Your task to perform on an android device: Search for "sony triple a" on costco, select the first entry, add it to the cart, then select checkout. Image 0: 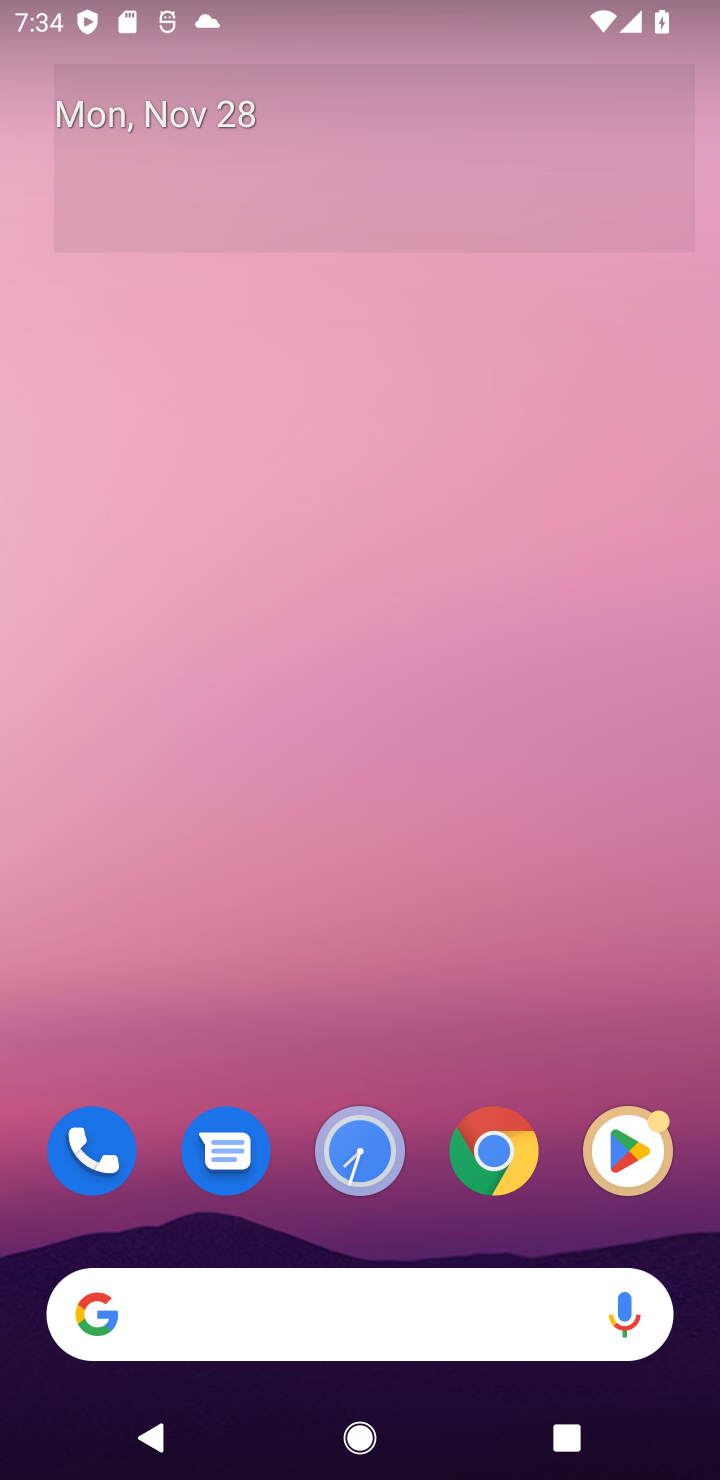
Step 0: click (303, 1288)
Your task to perform on an android device: Search for "sony triple a" on costco, select the first entry, add it to the cart, then select checkout. Image 1: 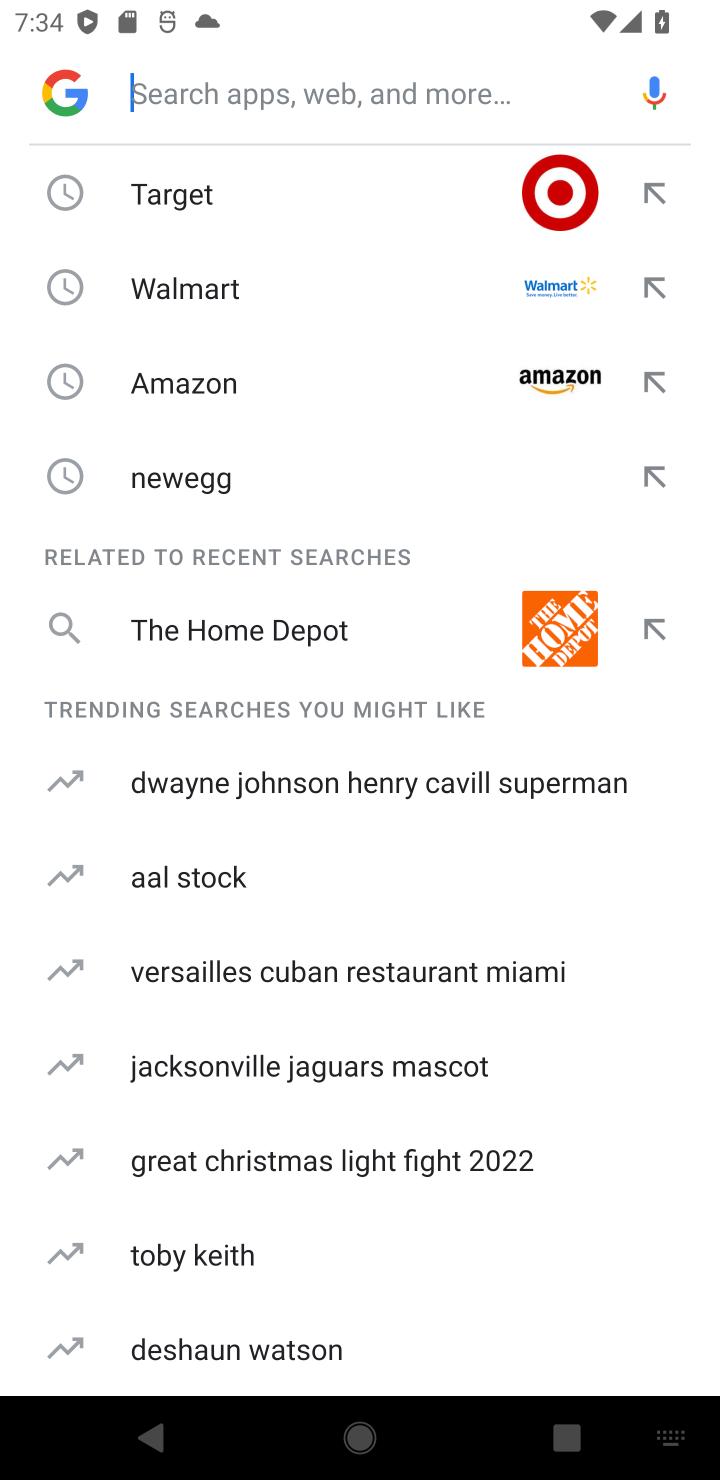
Step 1: type "cpstco"
Your task to perform on an android device: Search for "sony triple a" on costco, select the first entry, add it to the cart, then select checkout. Image 2: 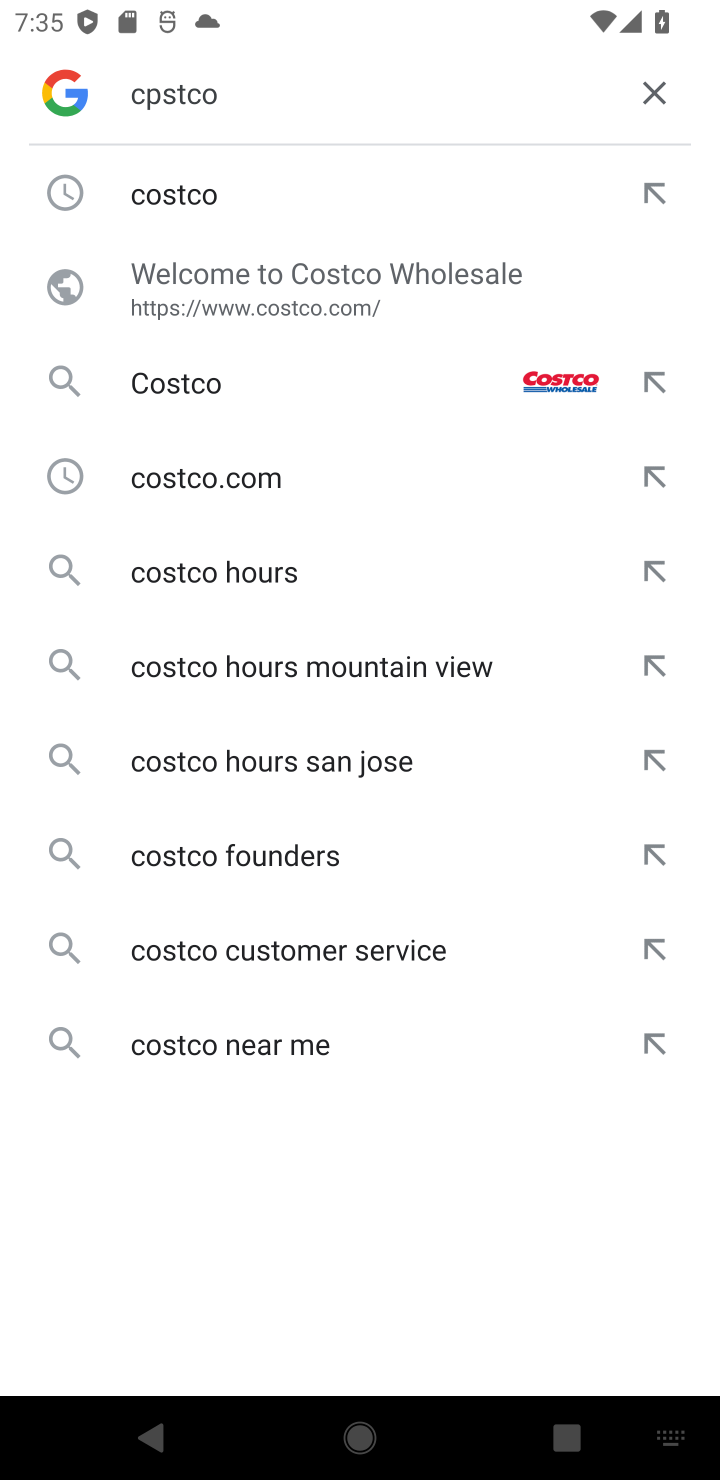
Step 2: click (248, 264)
Your task to perform on an android device: Search for "sony triple a" on costco, select the first entry, add it to the cart, then select checkout. Image 3: 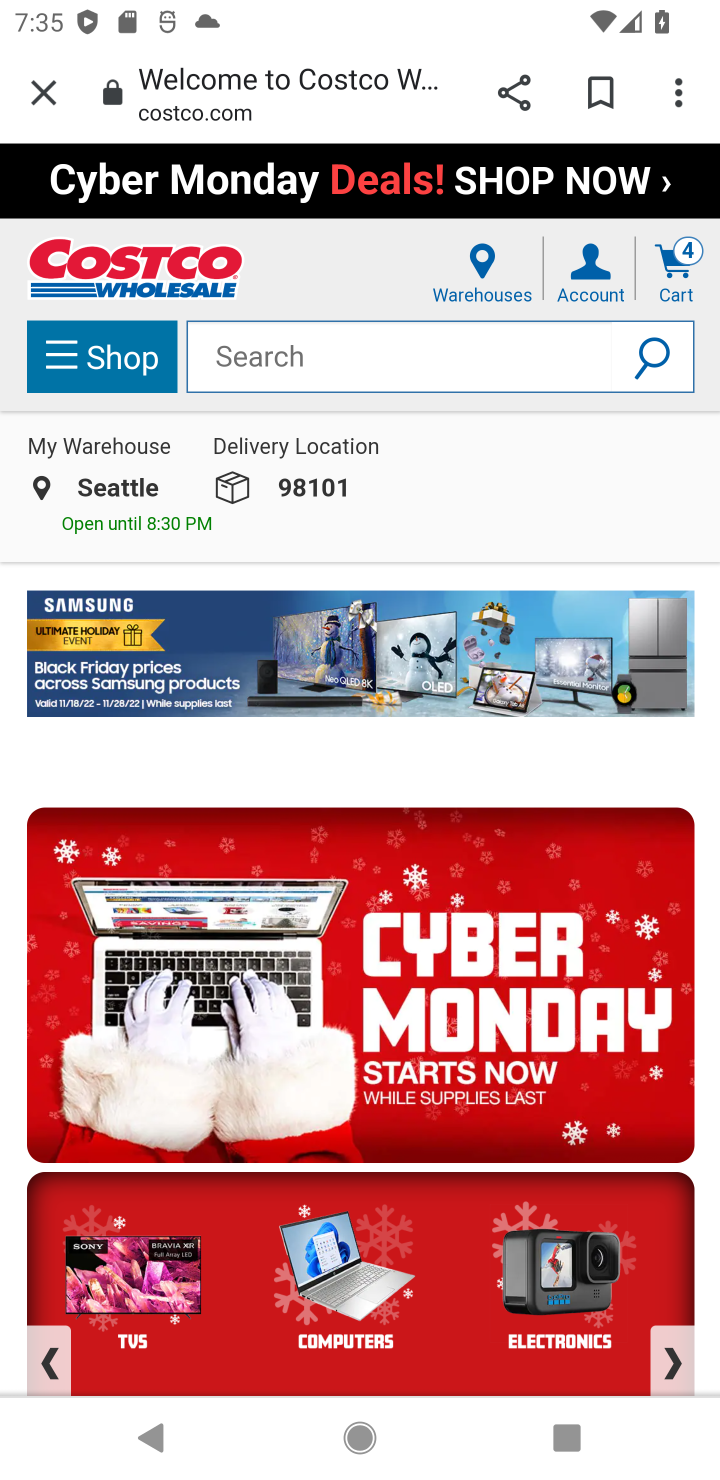
Step 3: click (428, 375)
Your task to perform on an android device: Search for "sony triple a" on costco, select the first entry, add it to the cart, then select checkout. Image 4: 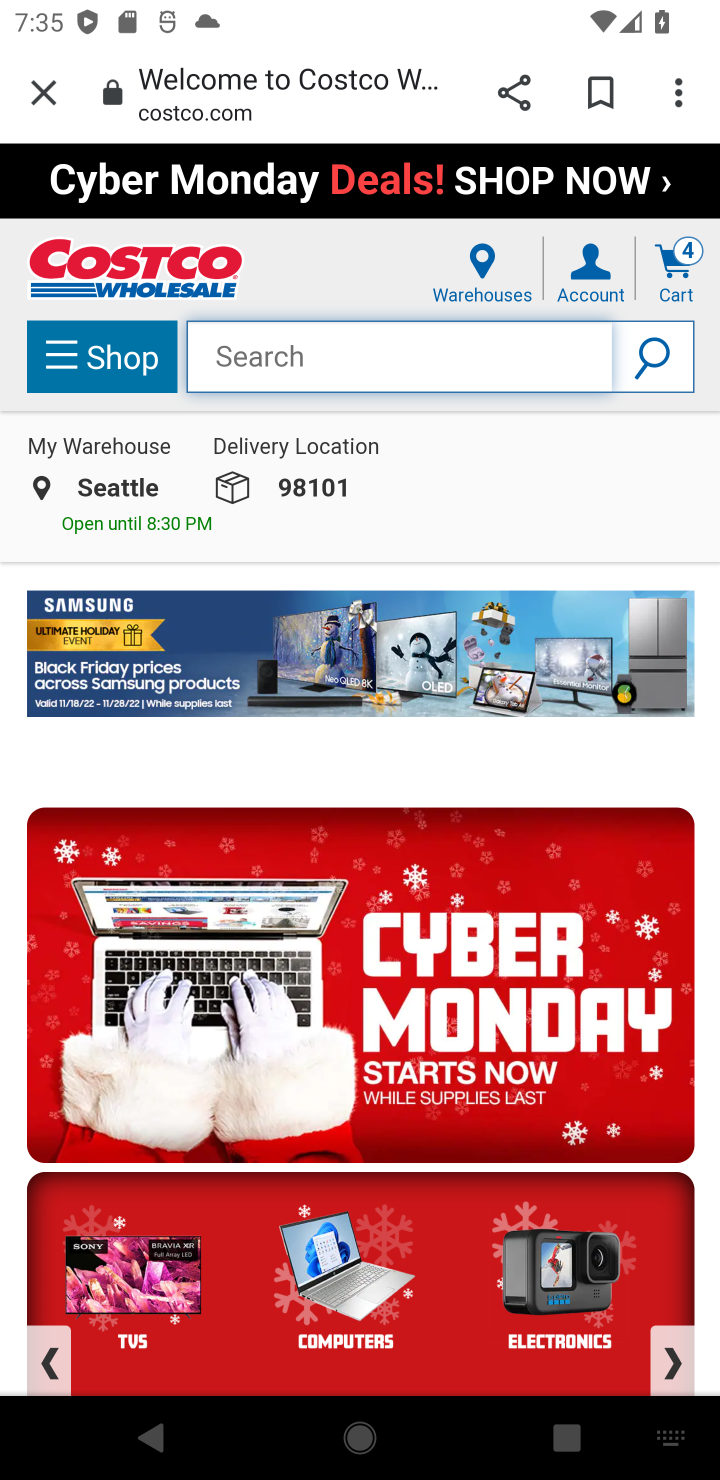
Step 4: type "sony triple a"
Your task to perform on an android device: Search for "sony triple a" on costco, select the first entry, add it to the cart, then select checkout. Image 5: 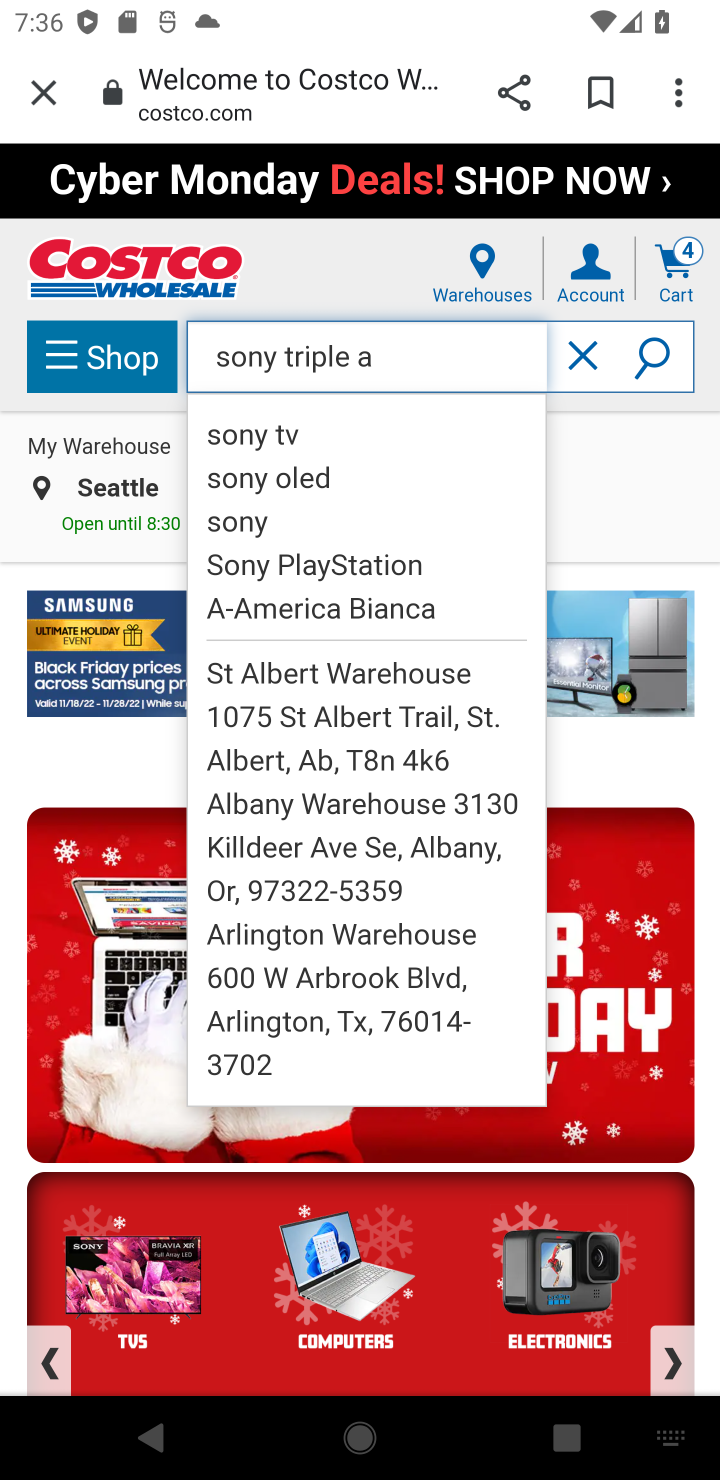
Step 5: click (662, 381)
Your task to perform on an android device: Search for "sony triple a" on costco, select the first entry, add it to the cart, then select checkout. Image 6: 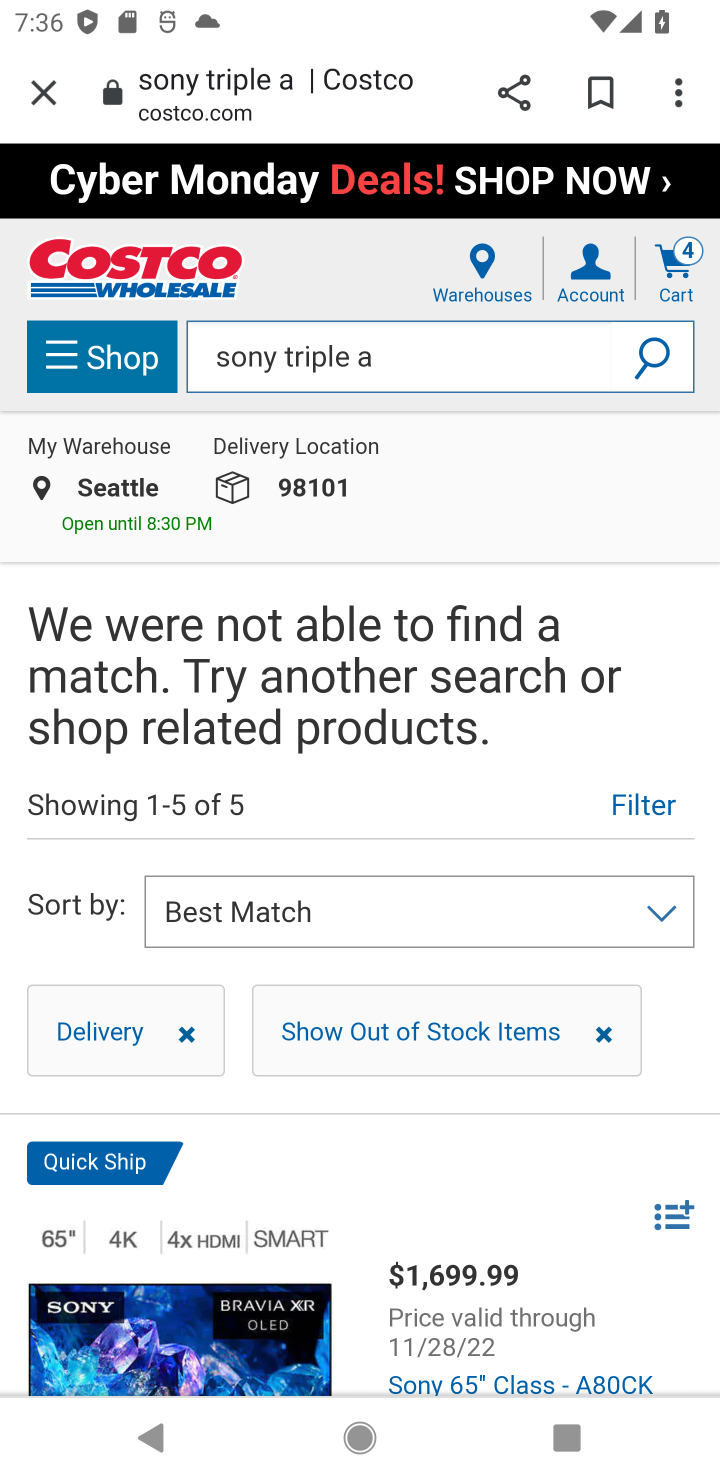
Step 6: task complete